Your task to perform on an android device: turn pop-ups on in chrome Image 0: 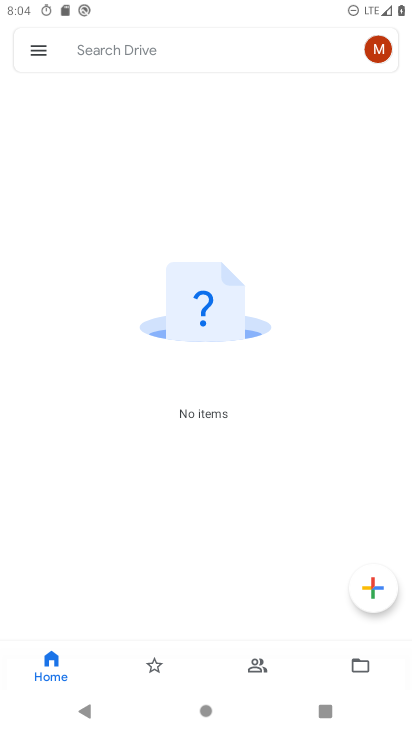
Step 0: press home button
Your task to perform on an android device: turn pop-ups on in chrome Image 1: 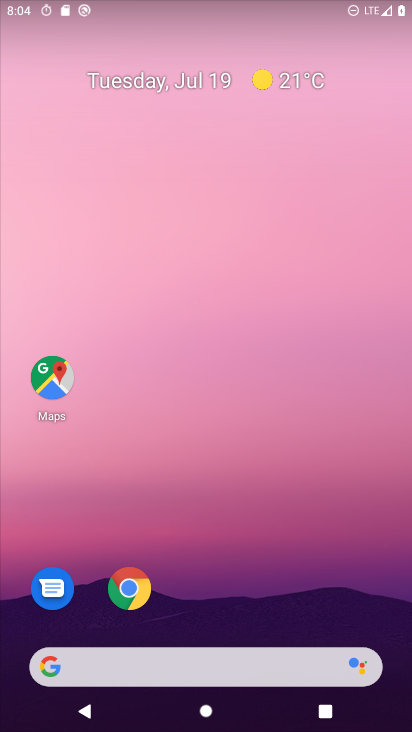
Step 1: drag from (275, 501) to (272, 135)
Your task to perform on an android device: turn pop-ups on in chrome Image 2: 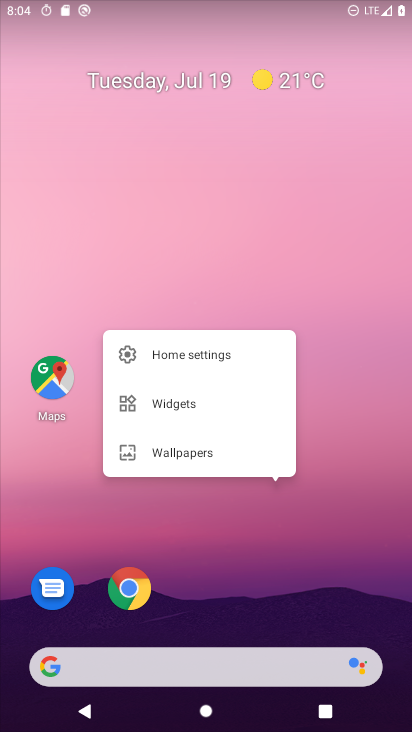
Step 2: click (222, 566)
Your task to perform on an android device: turn pop-ups on in chrome Image 3: 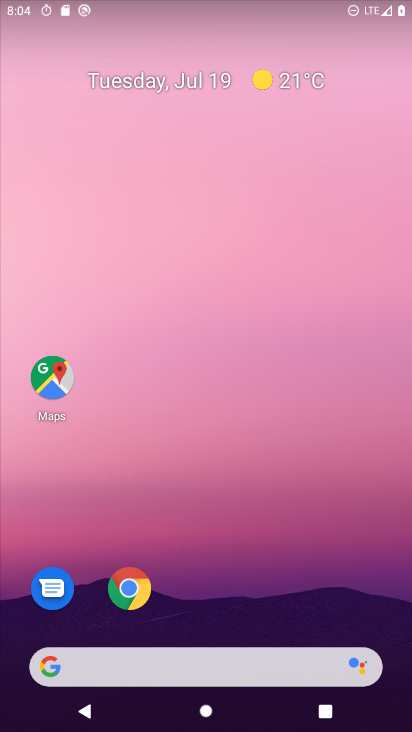
Step 3: drag from (226, 590) to (235, 137)
Your task to perform on an android device: turn pop-ups on in chrome Image 4: 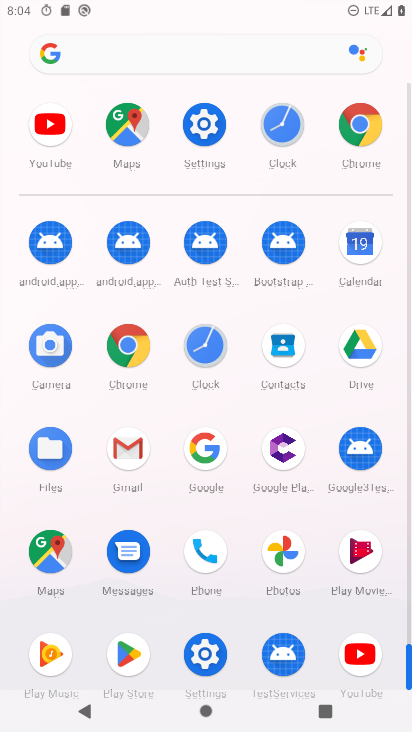
Step 4: click (133, 356)
Your task to perform on an android device: turn pop-ups on in chrome Image 5: 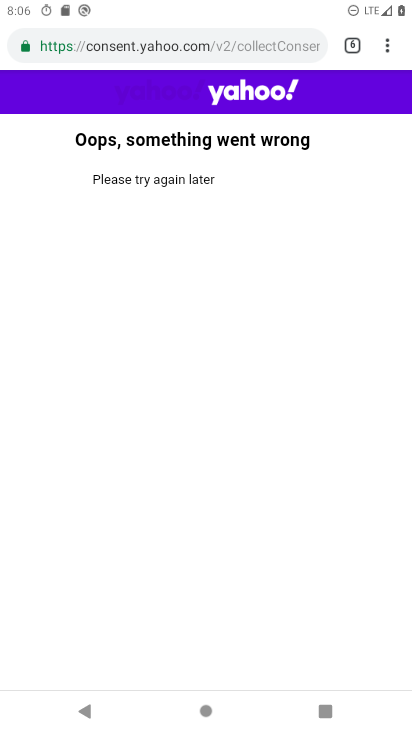
Step 5: click (390, 47)
Your task to perform on an android device: turn pop-ups on in chrome Image 6: 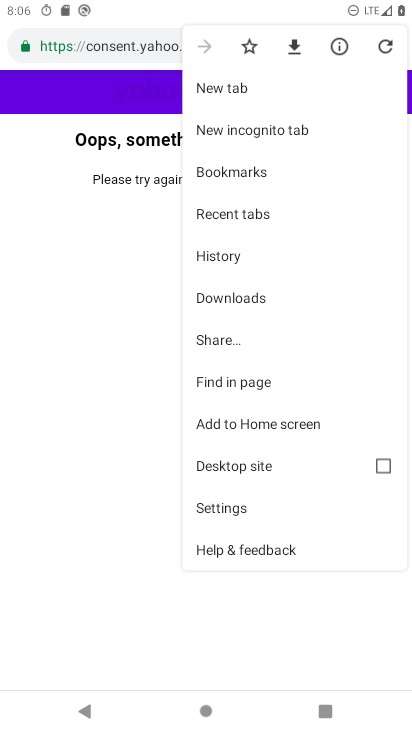
Step 6: click (255, 512)
Your task to perform on an android device: turn pop-ups on in chrome Image 7: 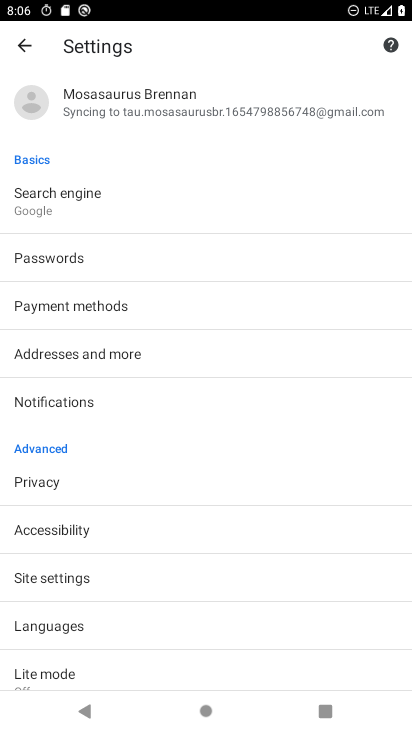
Step 7: click (100, 581)
Your task to perform on an android device: turn pop-ups on in chrome Image 8: 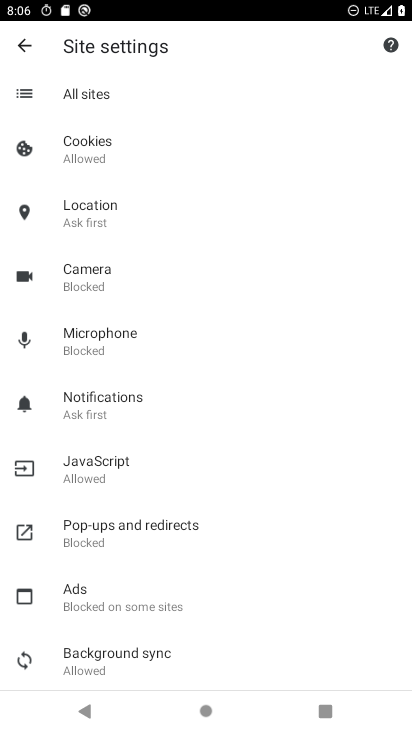
Step 8: click (176, 538)
Your task to perform on an android device: turn pop-ups on in chrome Image 9: 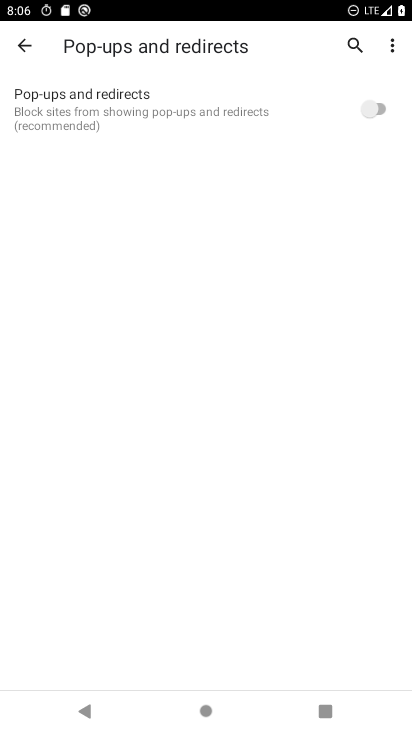
Step 9: click (380, 117)
Your task to perform on an android device: turn pop-ups on in chrome Image 10: 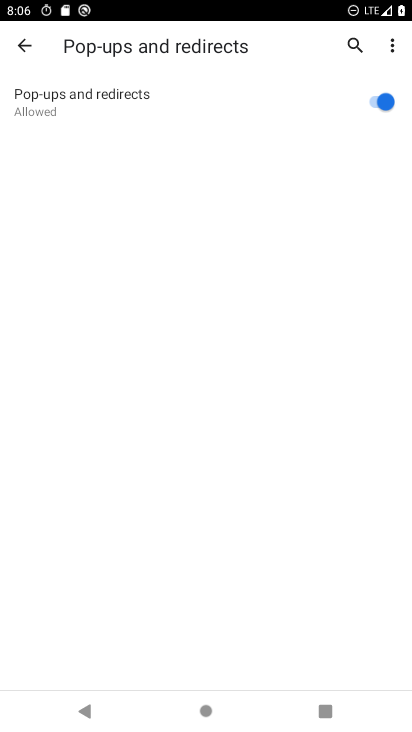
Step 10: task complete